Your task to perform on an android device: Search for Mexican restaurants on Maps Image 0: 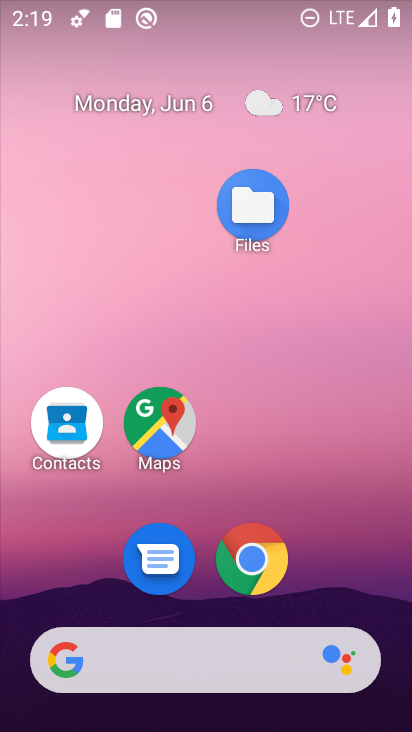
Step 0: drag from (219, 724) to (216, 143)
Your task to perform on an android device: Search for Mexican restaurants on Maps Image 1: 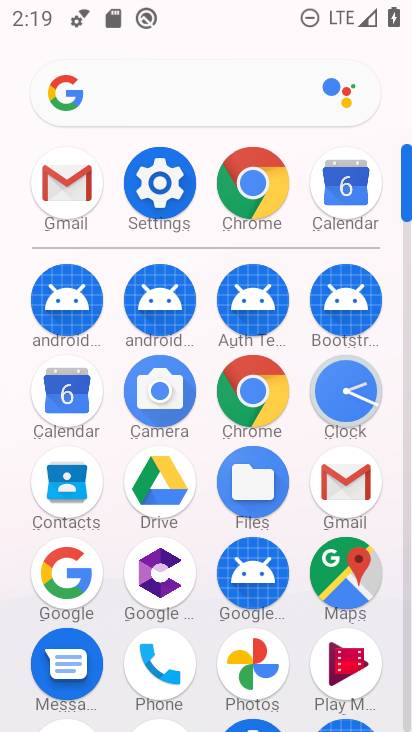
Step 1: click (357, 578)
Your task to perform on an android device: Search for Mexican restaurants on Maps Image 2: 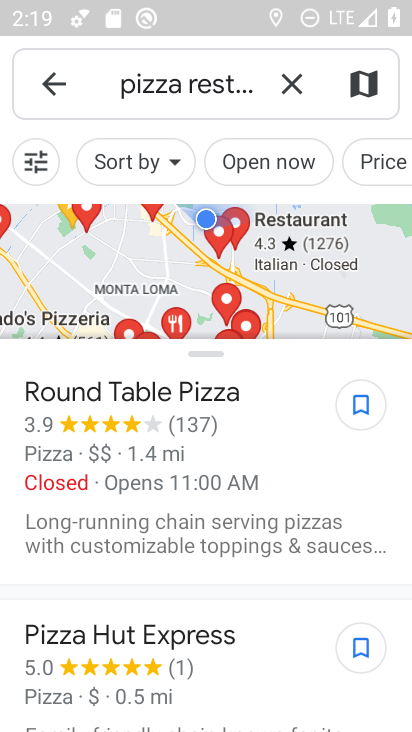
Step 2: click (286, 75)
Your task to perform on an android device: Search for Mexican restaurants on Maps Image 3: 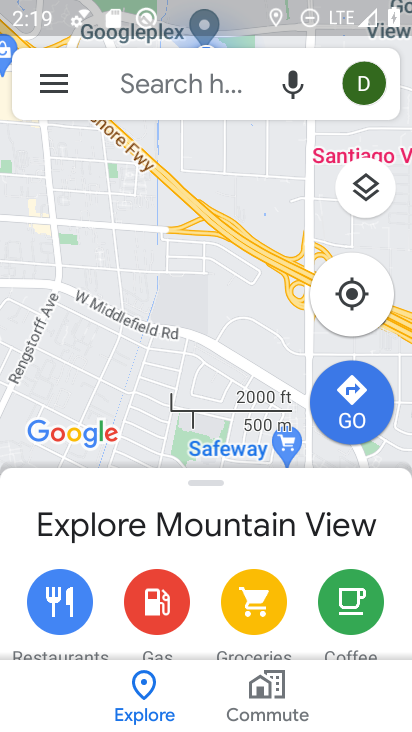
Step 3: click (196, 107)
Your task to perform on an android device: Search for Mexican restaurants on Maps Image 4: 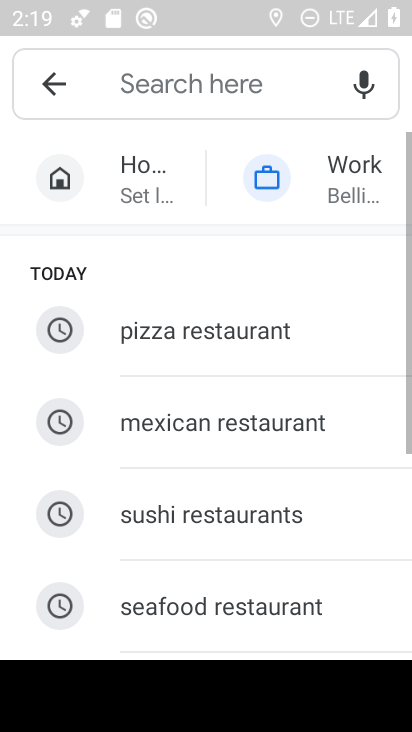
Step 4: click (217, 425)
Your task to perform on an android device: Search for Mexican restaurants on Maps Image 5: 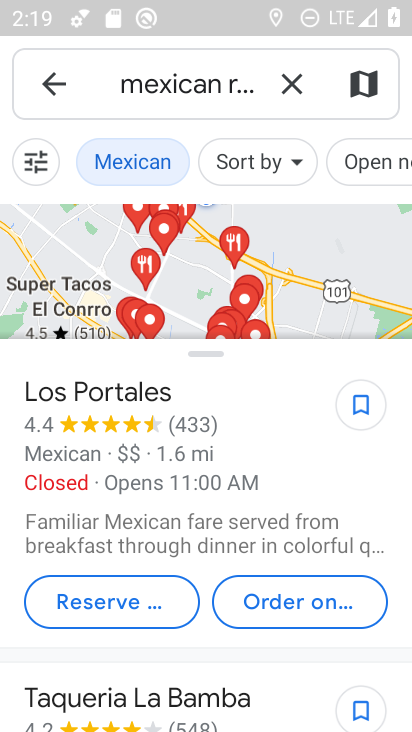
Step 5: task complete